Your task to perform on an android device: When is my next meeting? Image 0: 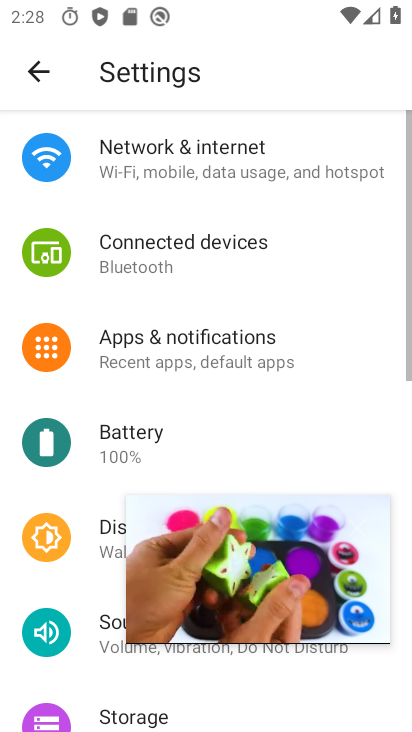
Step 0: click (388, 513)
Your task to perform on an android device: When is my next meeting? Image 1: 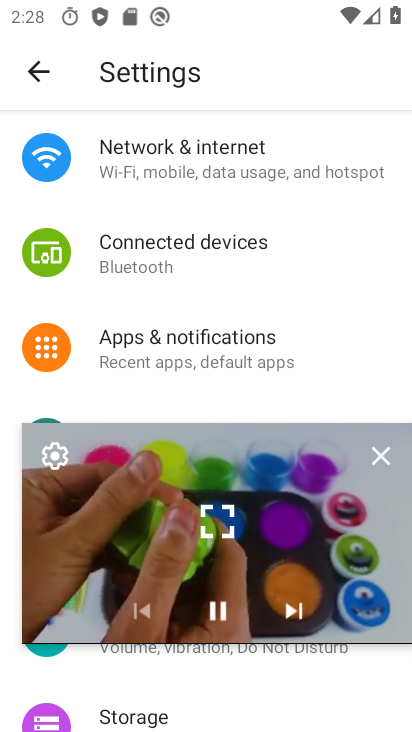
Step 1: click (385, 454)
Your task to perform on an android device: When is my next meeting? Image 2: 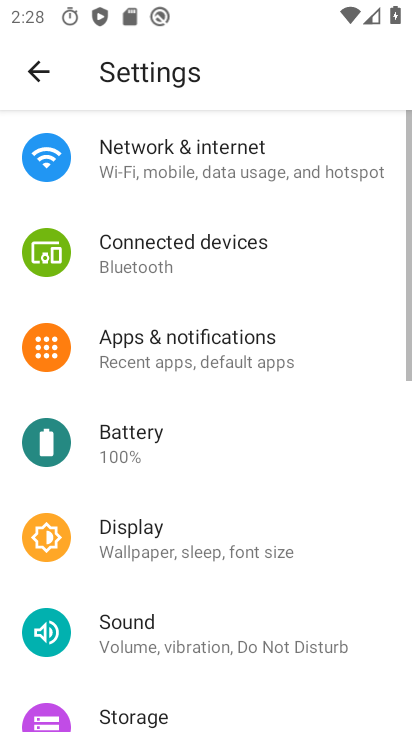
Step 2: press home button
Your task to perform on an android device: When is my next meeting? Image 3: 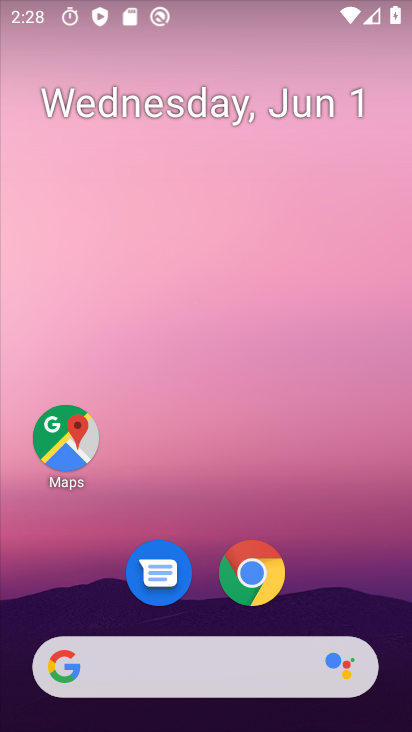
Step 3: drag from (206, 618) to (239, 202)
Your task to perform on an android device: When is my next meeting? Image 4: 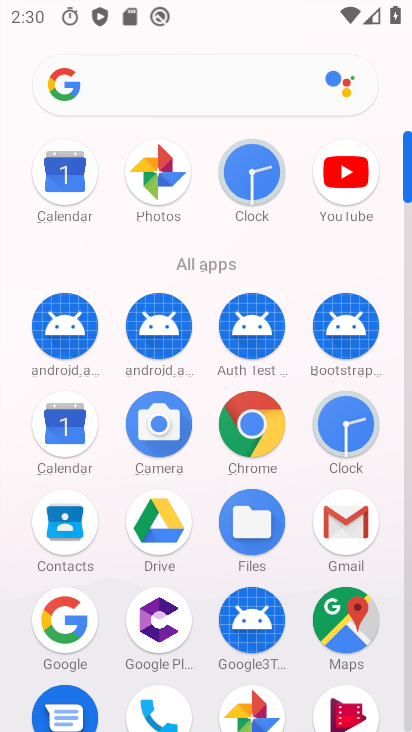
Step 4: click (46, 448)
Your task to perform on an android device: When is my next meeting? Image 5: 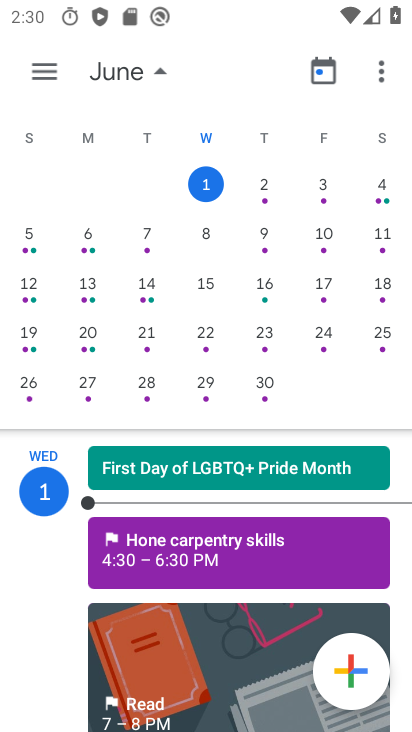
Step 5: task complete